Your task to perform on an android device: check data usage Image 0: 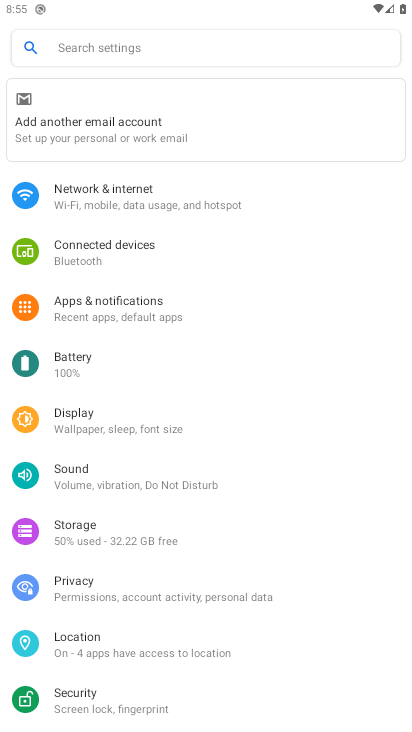
Step 0: press home button
Your task to perform on an android device: check data usage Image 1: 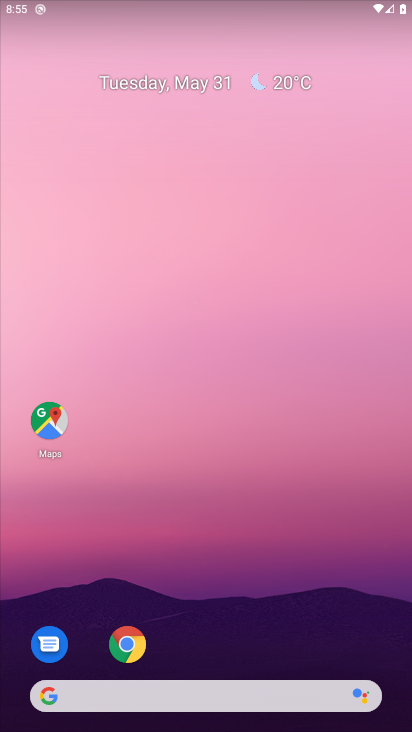
Step 1: drag from (214, 634) to (243, 157)
Your task to perform on an android device: check data usage Image 2: 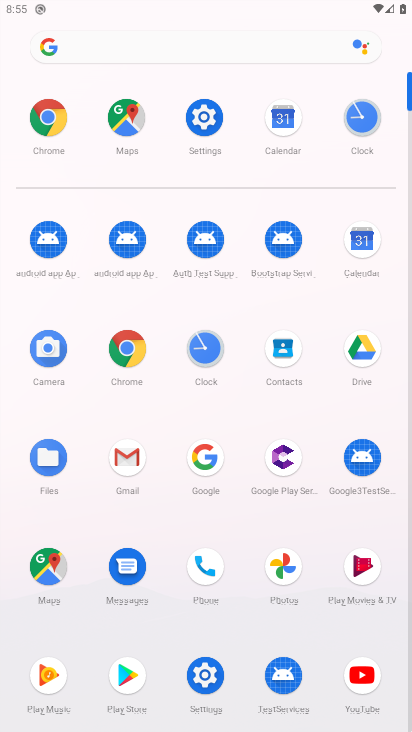
Step 2: click (201, 109)
Your task to perform on an android device: check data usage Image 3: 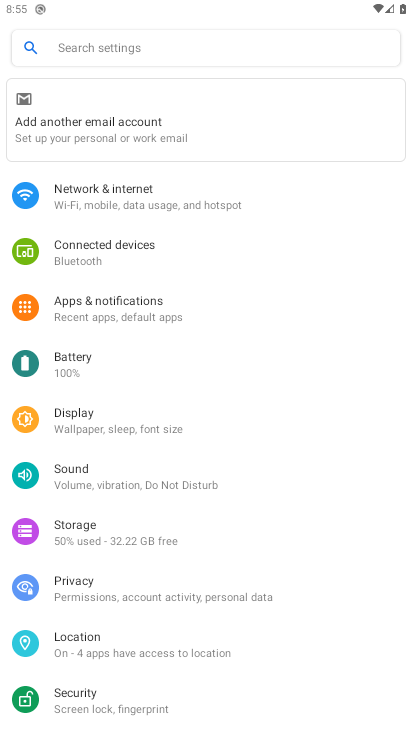
Step 3: click (160, 189)
Your task to perform on an android device: check data usage Image 4: 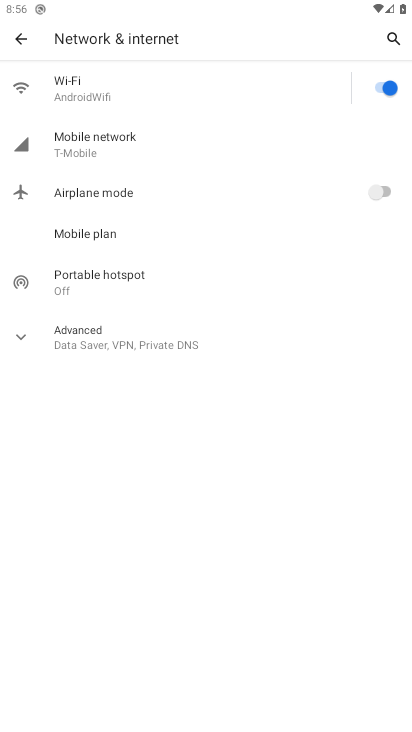
Step 4: click (147, 142)
Your task to perform on an android device: check data usage Image 5: 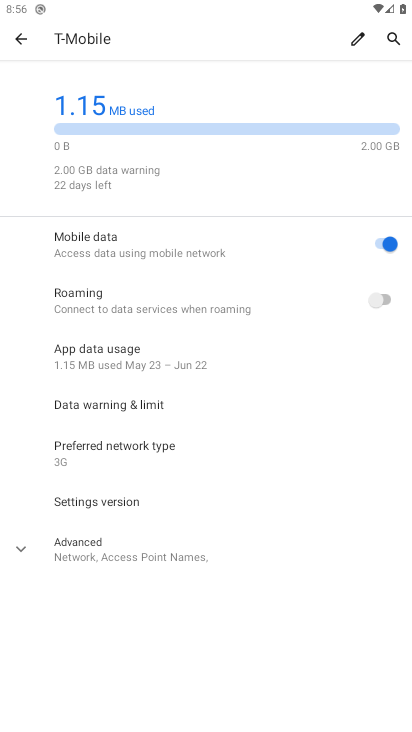
Step 5: click (139, 351)
Your task to perform on an android device: check data usage Image 6: 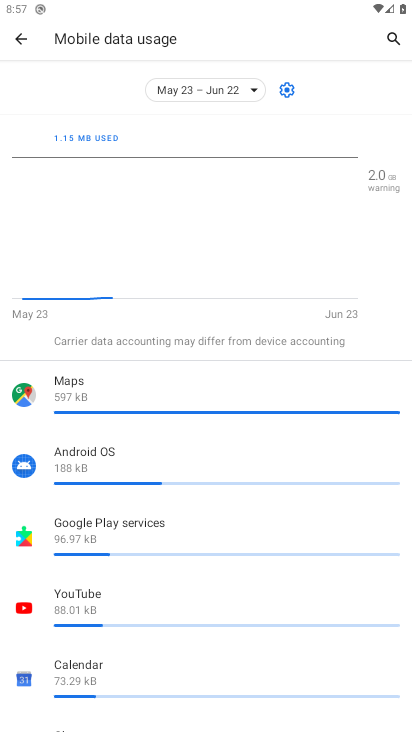
Step 6: task complete